Your task to perform on an android device: What's the news in Bangladesh? Image 0: 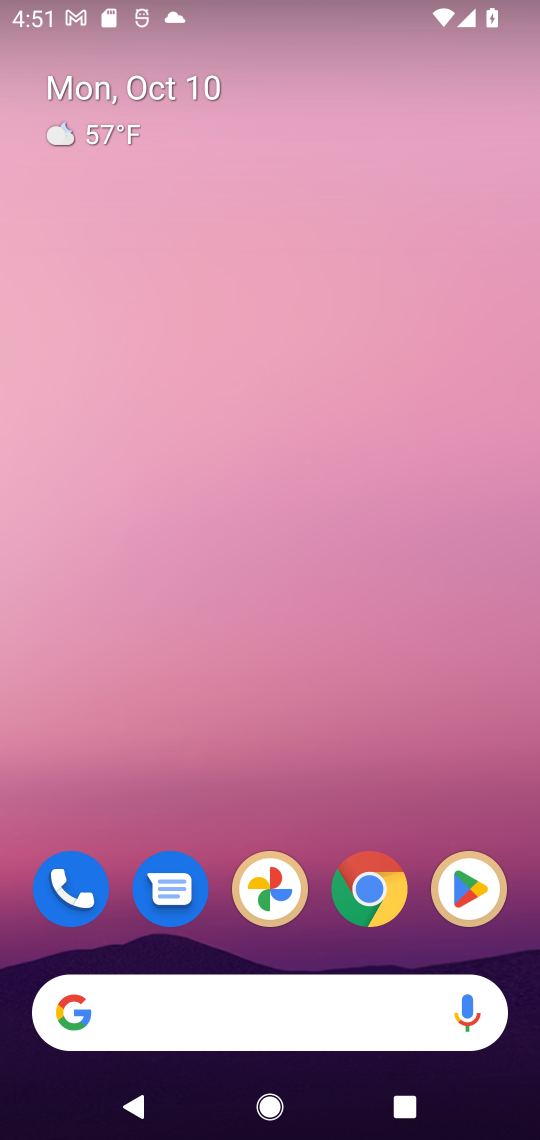
Step 0: click (371, 887)
Your task to perform on an android device: What's the news in Bangladesh? Image 1: 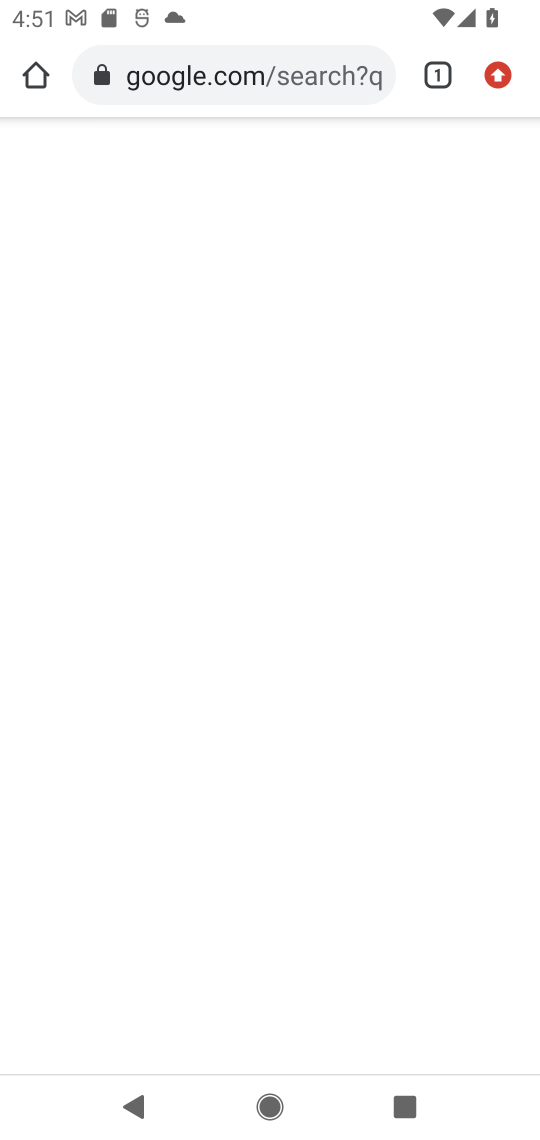
Step 1: click (27, 65)
Your task to perform on an android device: What's the news in Bangladesh? Image 2: 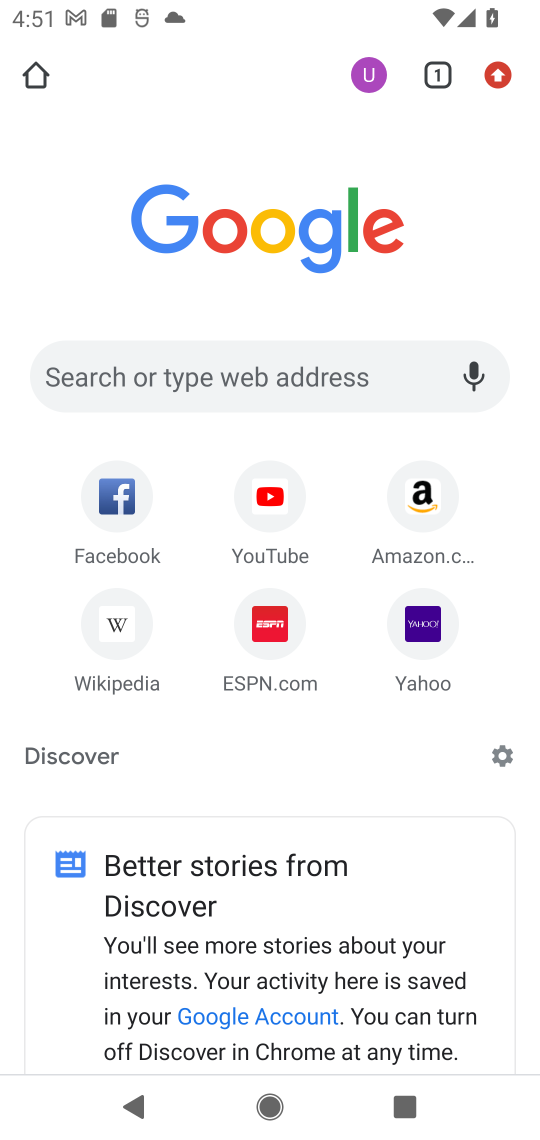
Step 2: click (163, 361)
Your task to perform on an android device: What's the news in Bangladesh? Image 3: 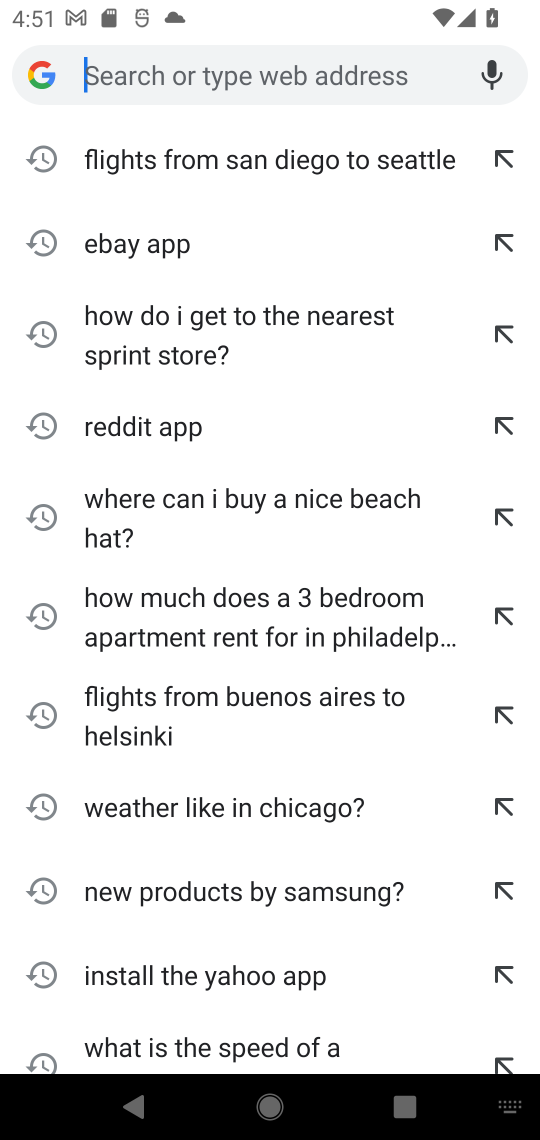
Step 3: type "news in Bangladesh?"
Your task to perform on an android device: What's the news in Bangladesh? Image 4: 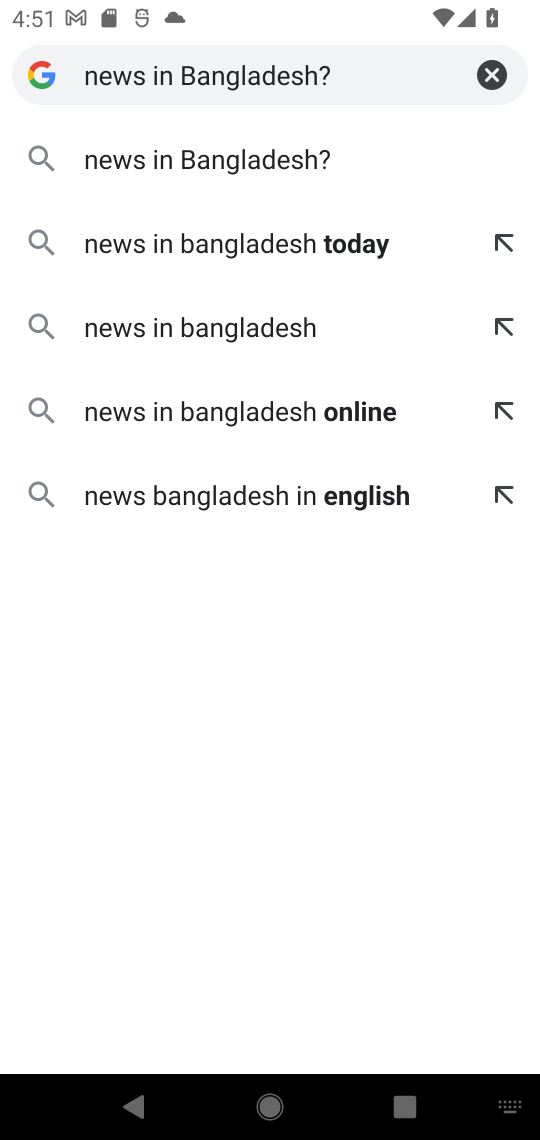
Step 4: click (135, 169)
Your task to perform on an android device: What's the news in Bangladesh? Image 5: 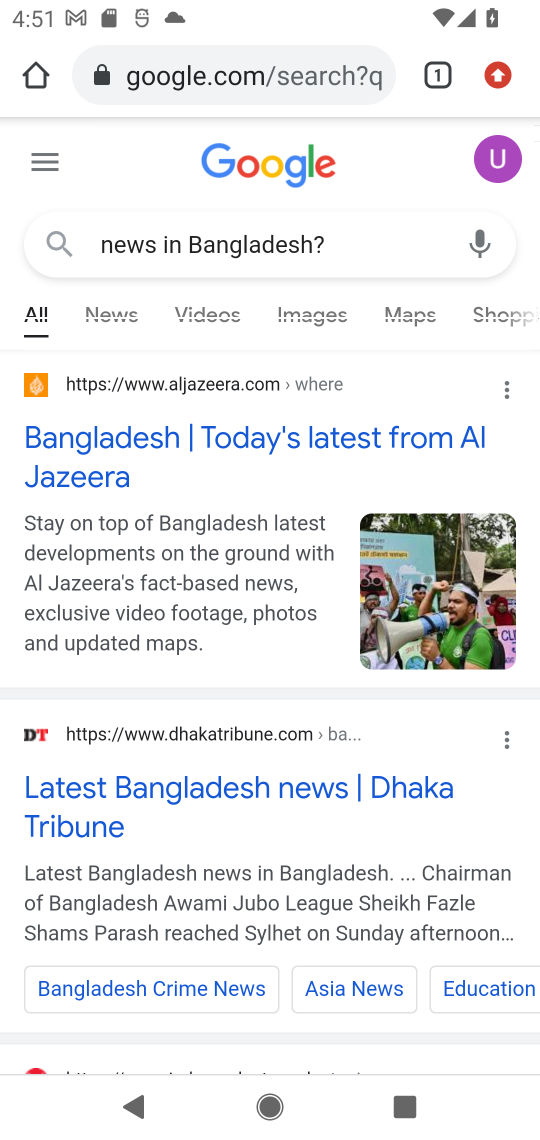
Step 5: click (123, 452)
Your task to perform on an android device: What's the news in Bangladesh? Image 6: 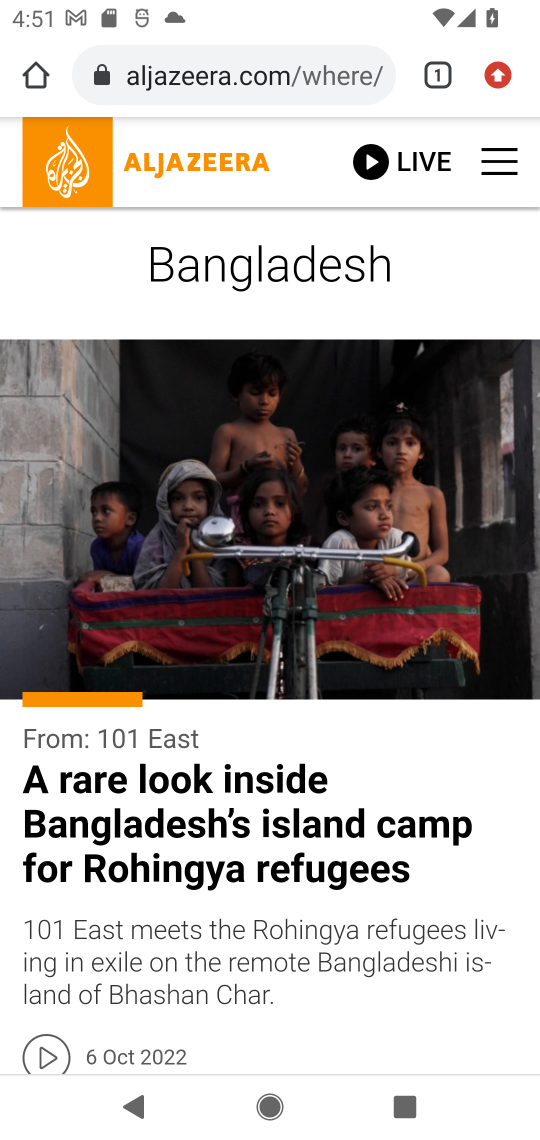
Step 6: drag from (337, 801) to (306, 381)
Your task to perform on an android device: What's the news in Bangladesh? Image 7: 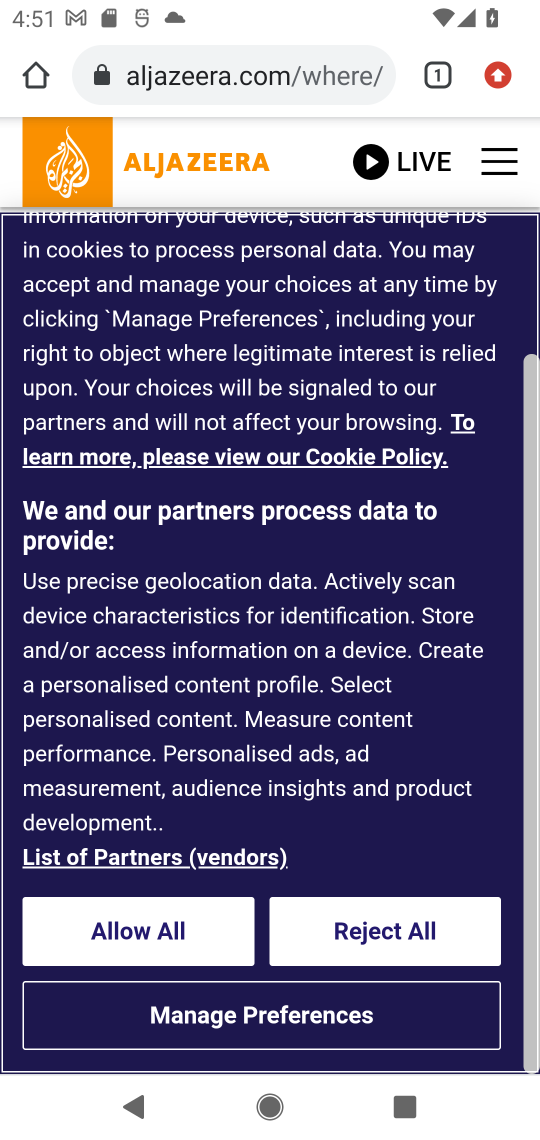
Step 7: click (128, 934)
Your task to perform on an android device: What's the news in Bangladesh? Image 8: 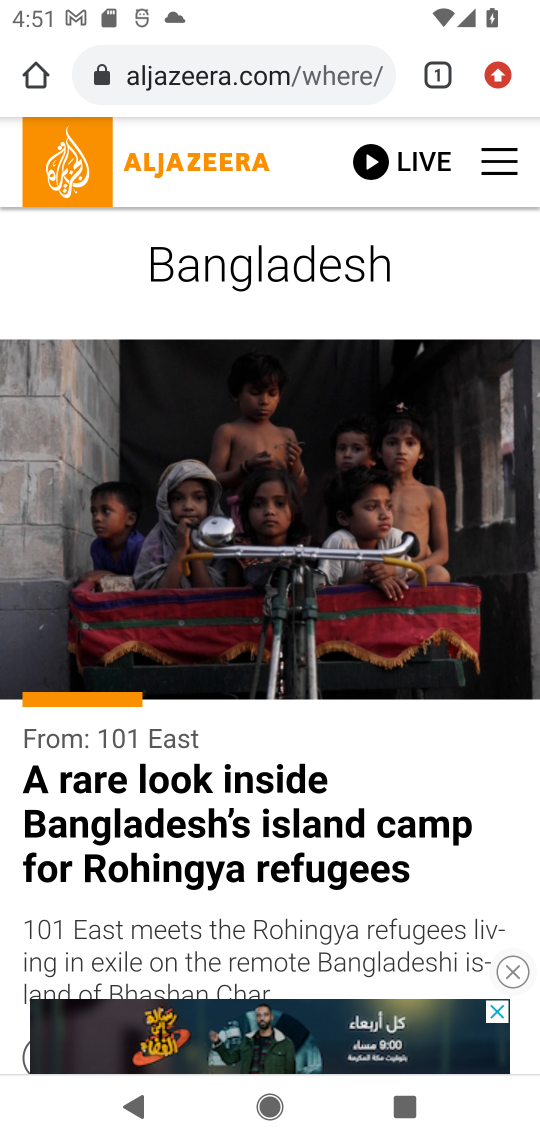
Step 8: drag from (405, 847) to (358, 617)
Your task to perform on an android device: What's the news in Bangladesh? Image 9: 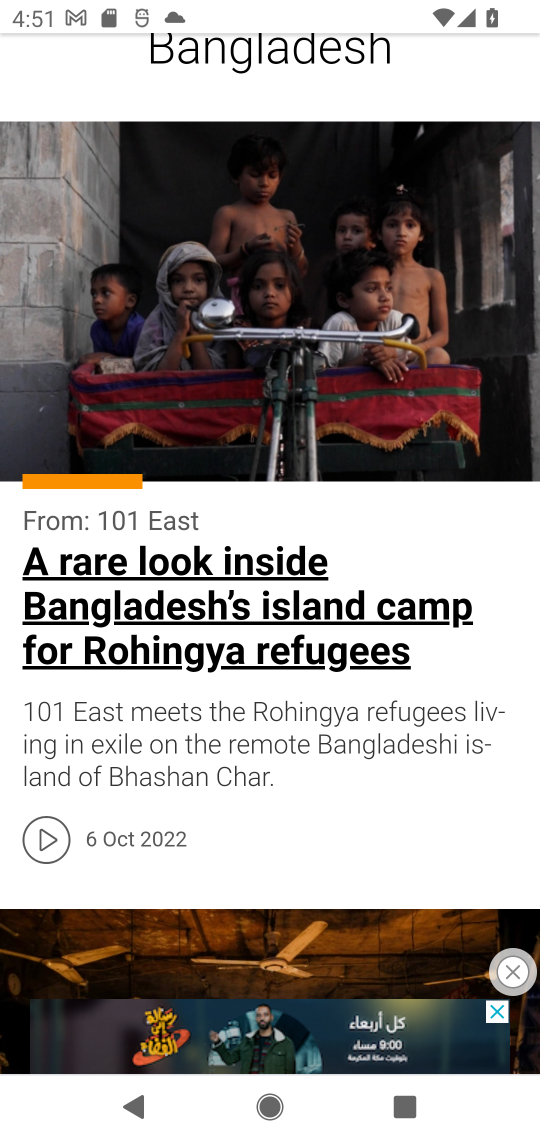
Step 9: click (97, 570)
Your task to perform on an android device: What's the news in Bangladesh? Image 10: 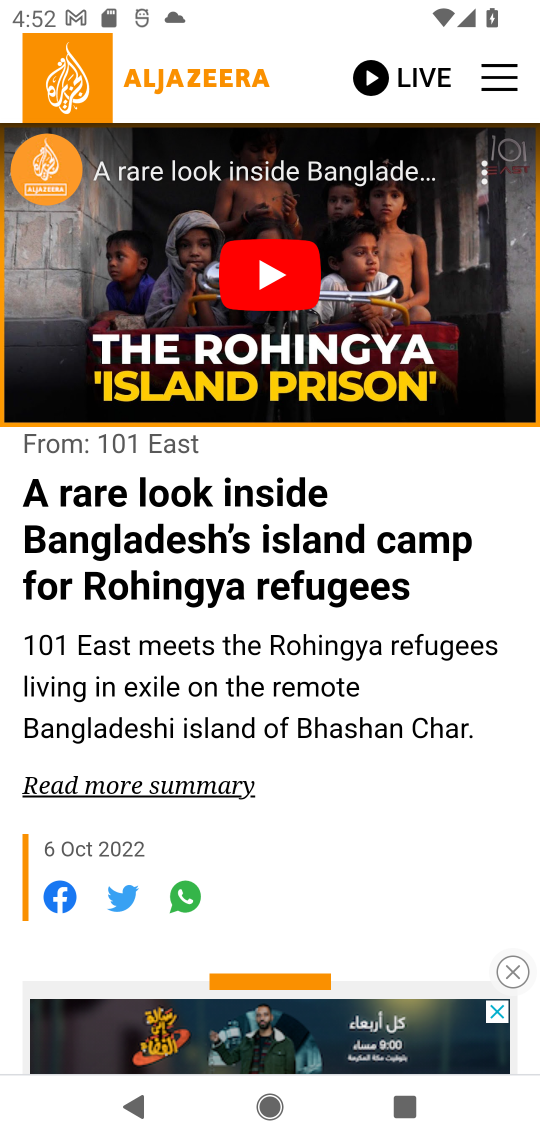
Step 10: drag from (282, 818) to (358, 190)
Your task to perform on an android device: What's the news in Bangladesh? Image 11: 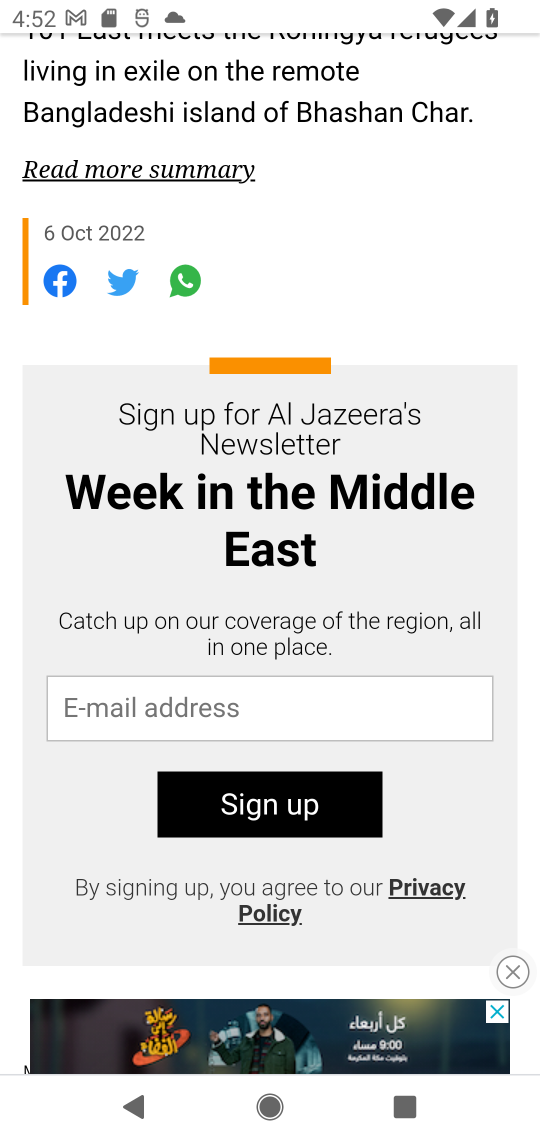
Step 11: drag from (429, 918) to (338, 60)
Your task to perform on an android device: What's the news in Bangladesh? Image 12: 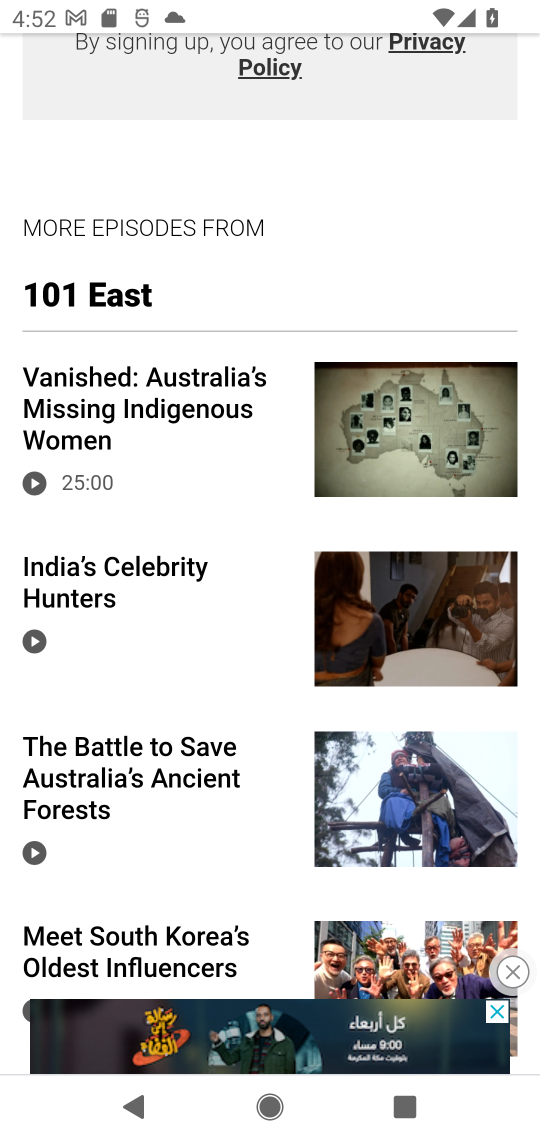
Step 12: click (285, 824)
Your task to perform on an android device: What's the news in Bangladesh? Image 13: 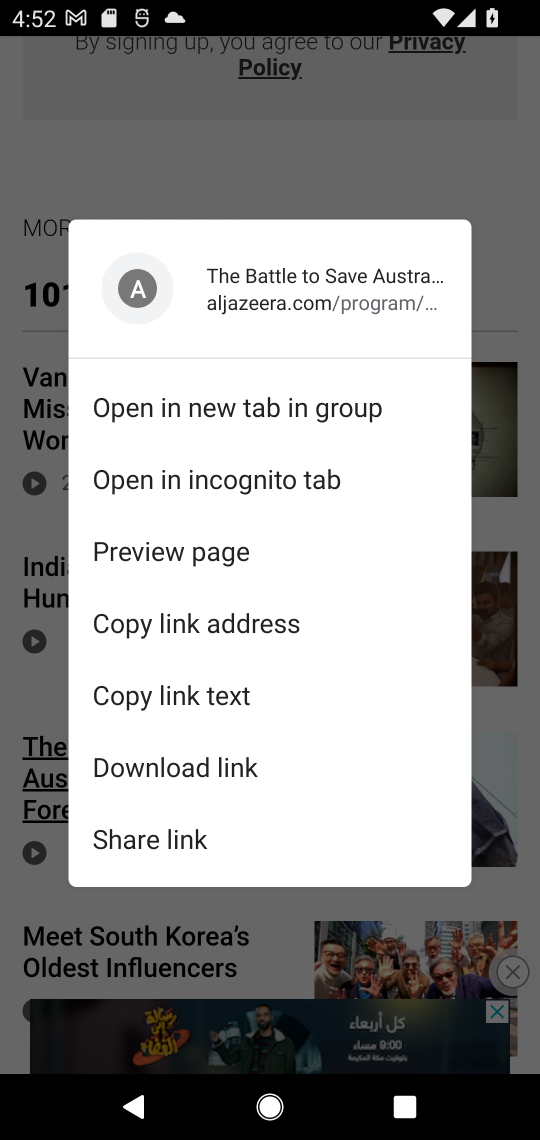
Step 13: click (303, 162)
Your task to perform on an android device: What's the news in Bangladesh? Image 14: 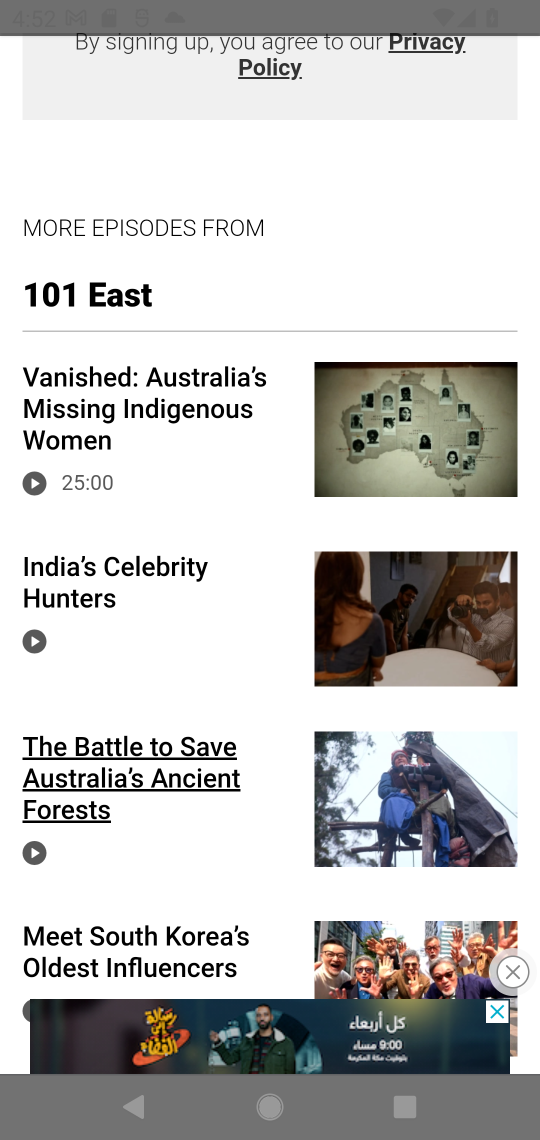
Step 14: drag from (303, 162) to (337, 789)
Your task to perform on an android device: What's the news in Bangladesh? Image 15: 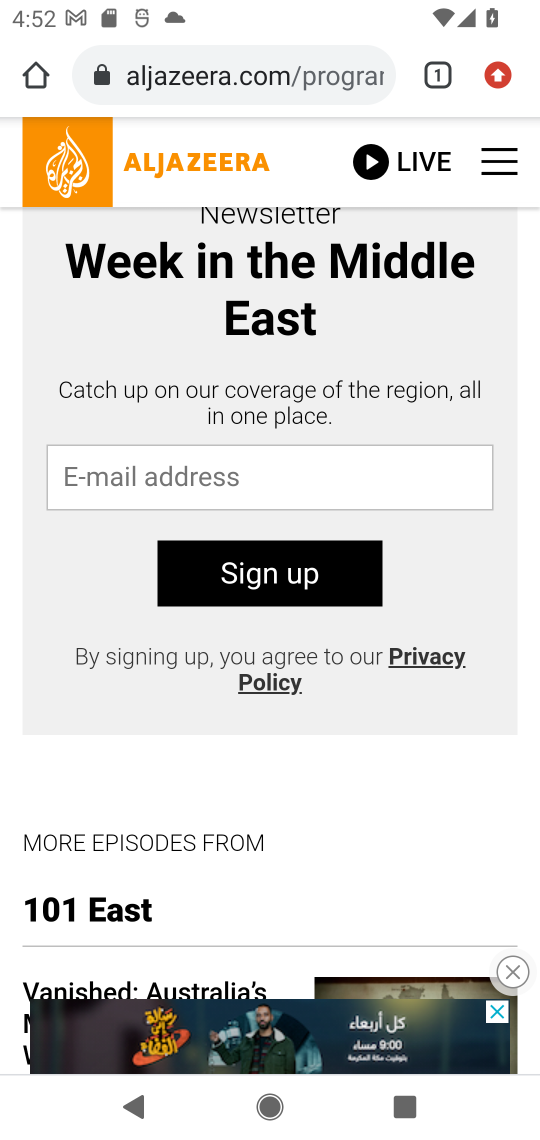
Step 15: drag from (271, 282) to (433, 924)
Your task to perform on an android device: What's the news in Bangladesh? Image 16: 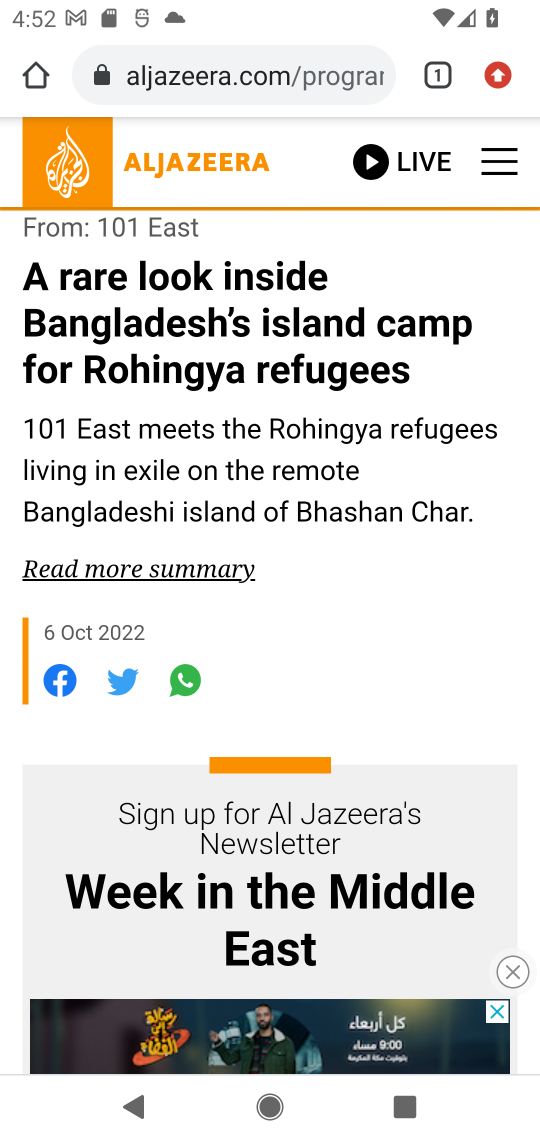
Step 16: click (135, 576)
Your task to perform on an android device: What's the news in Bangladesh? Image 17: 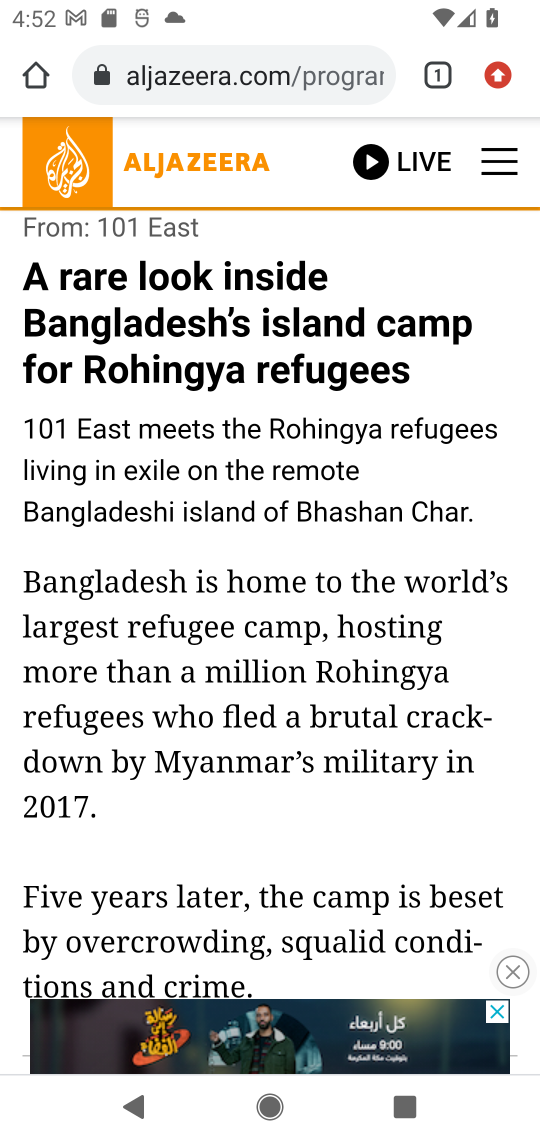
Step 17: task complete